Your task to perform on an android device: toggle notifications settings in the gmail app Image 0: 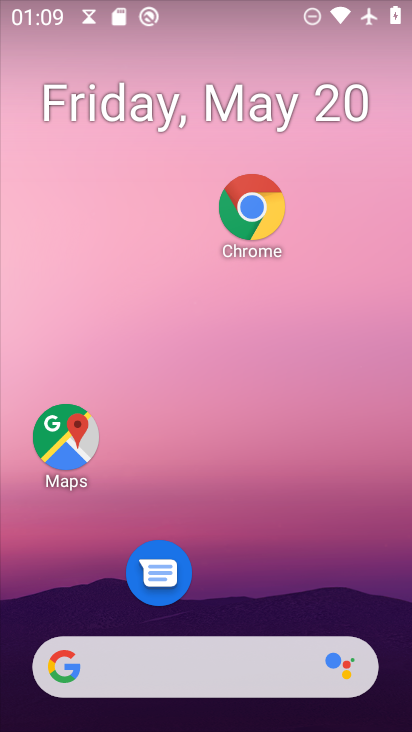
Step 0: drag from (258, 503) to (263, 84)
Your task to perform on an android device: toggle notifications settings in the gmail app Image 1: 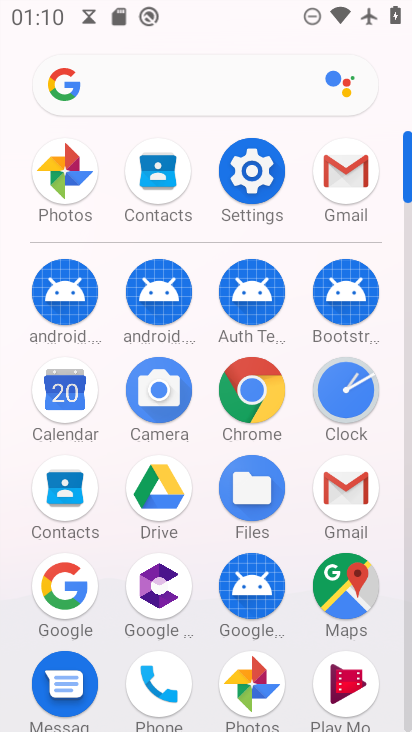
Step 1: click (336, 485)
Your task to perform on an android device: toggle notifications settings in the gmail app Image 2: 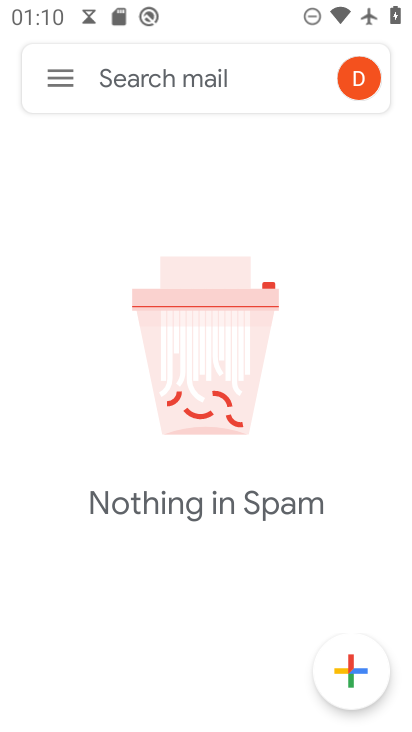
Step 2: click (55, 68)
Your task to perform on an android device: toggle notifications settings in the gmail app Image 3: 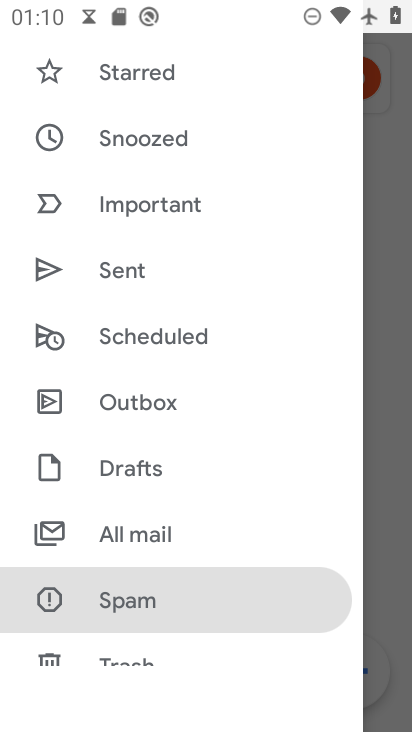
Step 3: drag from (143, 615) to (171, 98)
Your task to perform on an android device: toggle notifications settings in the gmail app Image 4: 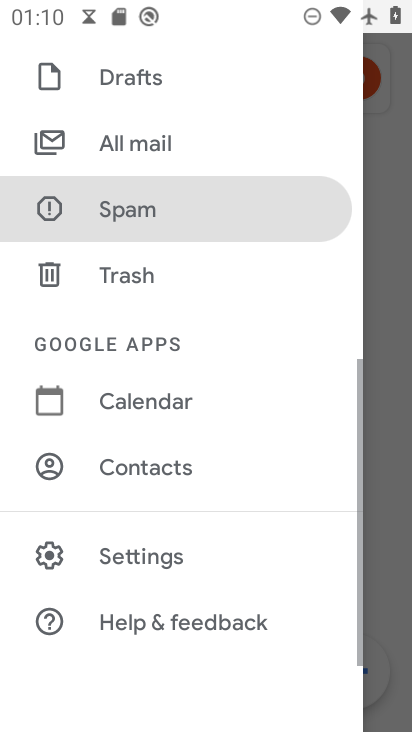
Step 4: click (104, 553)
Your task to perform on an android device: toggle notifications settings in the gmail app Image 5: 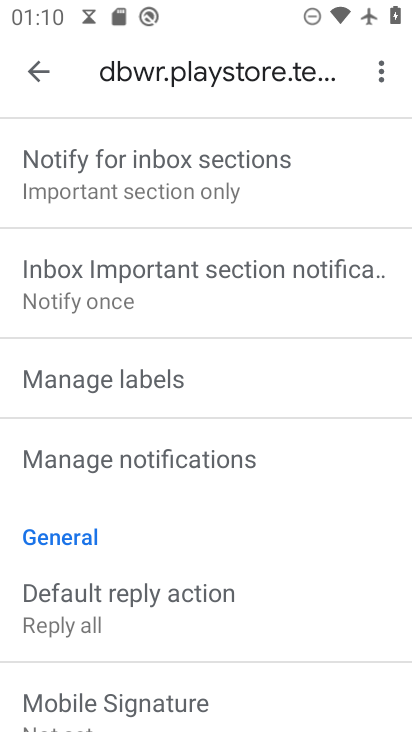
Step 5: click (170, 458)
Your task to perform on an android device: toggle notifications settings in the gmail app Image 6: 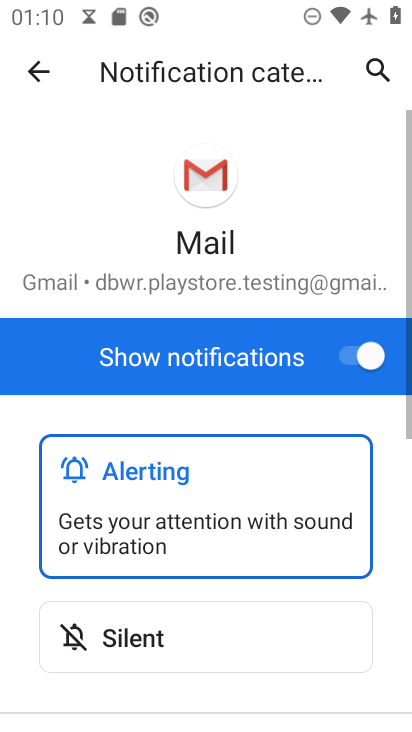
Step 6: click (321, 354)
Your task to perform on an android device: toggle notifications settings in the gmail app Image 7: 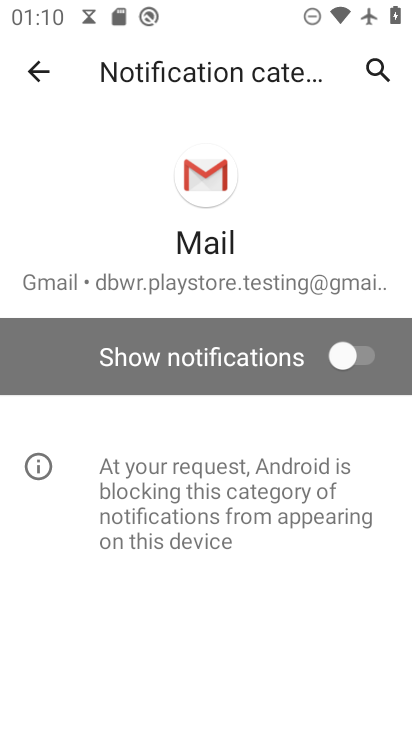
Step 7: task complete